Your task to perform on an android device: Go to sound settings Image 0: 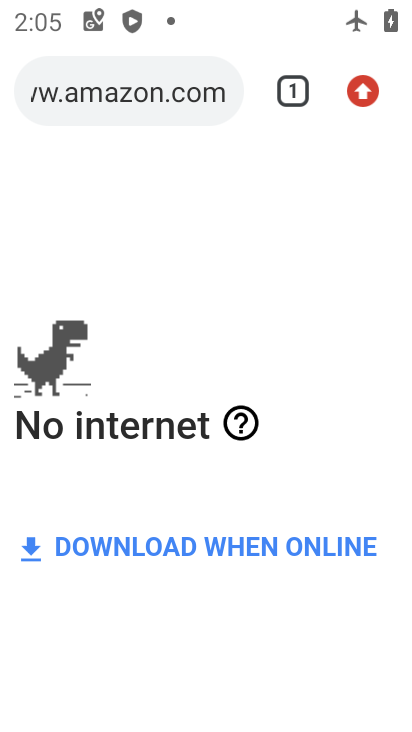
Step 0: press home button
Your task to perform on an android device: Go to sound settings Image 1: 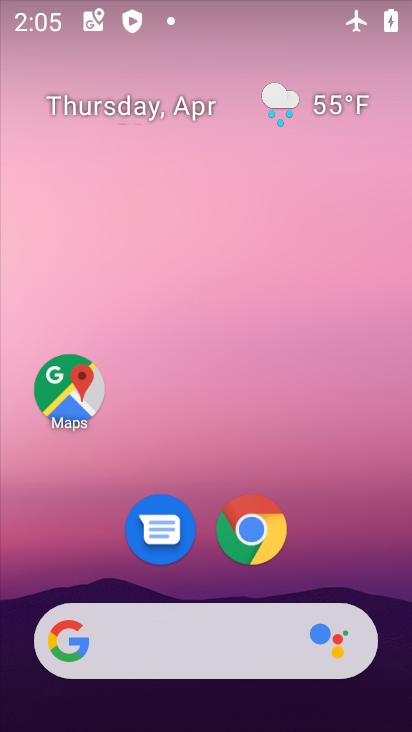
Step 1: drag from (219, 578) to (164, 225)
Your task to perform on an android device: Go to sound settings Image 2: 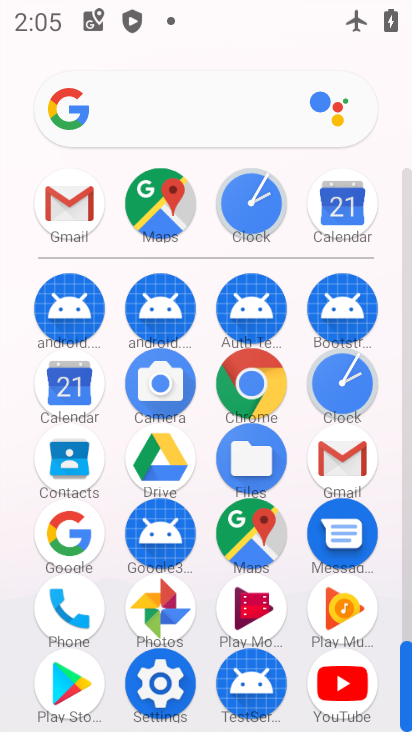
Step 2: click (166, 693)
Your task to perform on an android device: Go to sound settings Image 3: 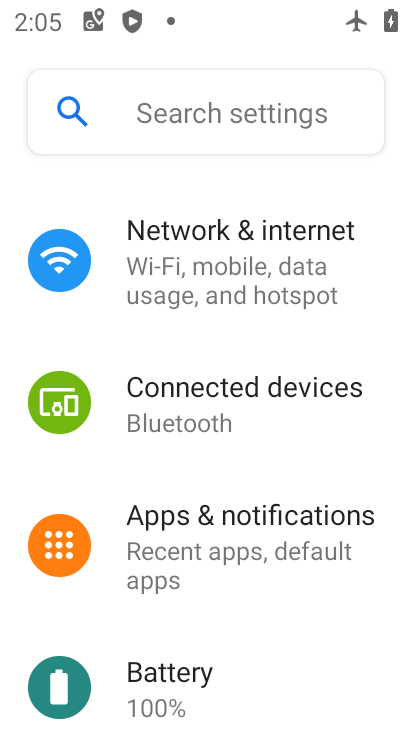
Step 3: drag from (218, 405) to (181, 300)
Your task to perform on an android device: Go to sound settings Image 4: 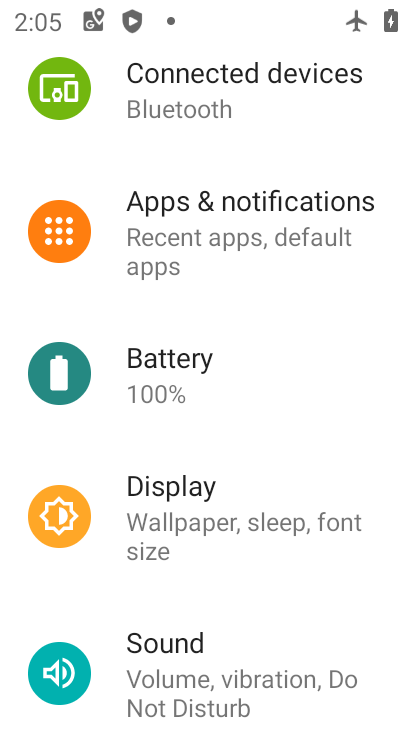
Step 4: click (251, 668)
Your task to perform on an android device: Go to sound settings Image 5: 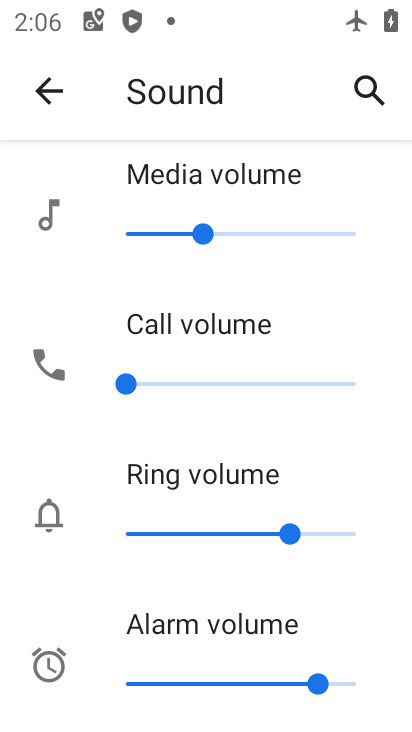
Step 5: task complete